Your task to perform on an android device: uninstall "Messages" Image 0: 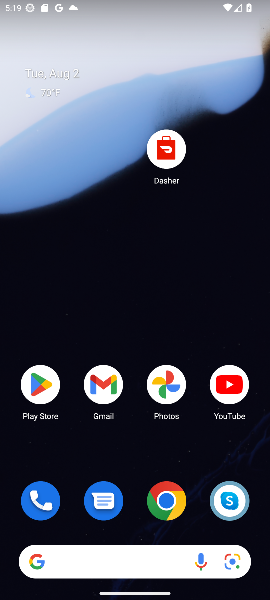
Step 0: press home button
Your task to perform on an android device: uninstall "Messages" Image 1: 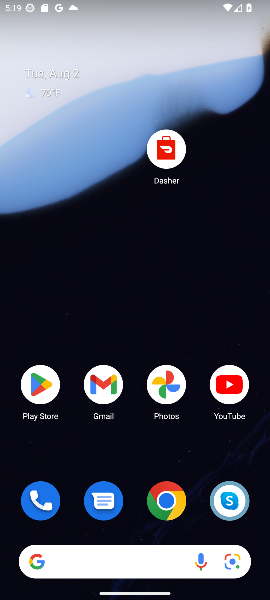
Step 1: click (39, 392)
Your task to perform on an android device: uninstall "Messages" Image 2: 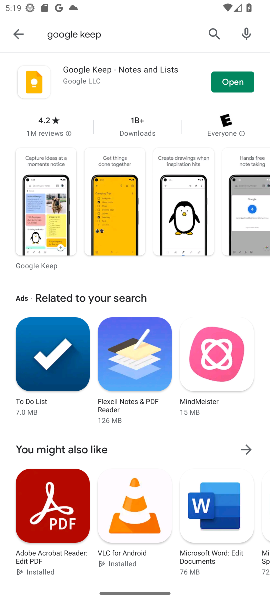
Step 2: click (215, 30)
Your task to perform on an android device: uninstall "Messages" Image 3: 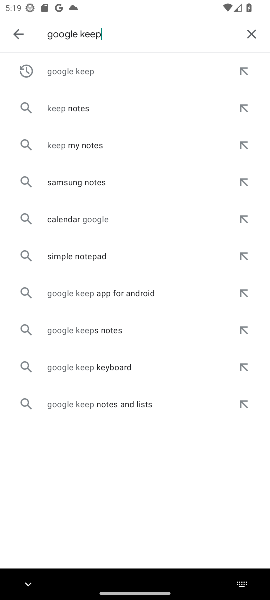
Step 3: click (252, 36)
Your task to perform on an android device: uninstall "Messages" Image 4: 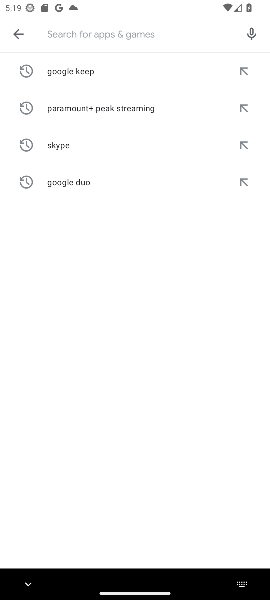
Step 4: type "Messages"
Your task to perform on an android device: uninstall "Messages" Image 5: 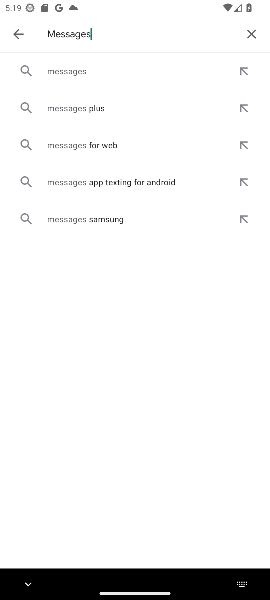
Step 5: click (70, 79)
Your task to perform on an android device: uninstall "Messages" Image 6: 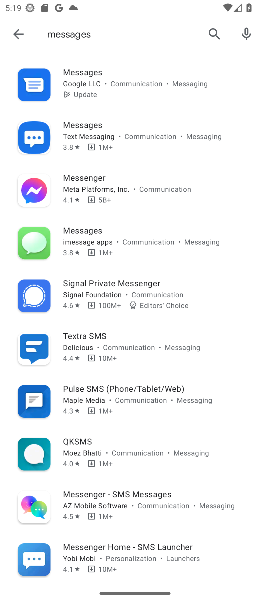
Step 6: click (70, 79)
Your task to perform on an android device: uninstall "Messages" Image 7: 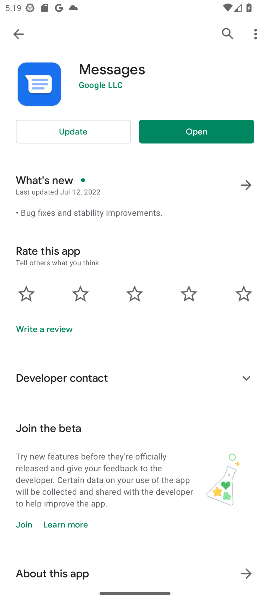
Step 7: click (60, 80)
Your task to perform on an android device: uninstall "Messages" Image 8: 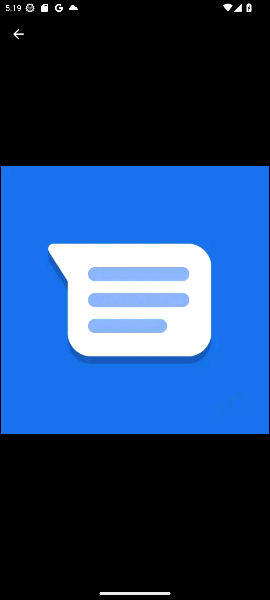
Step 8: click (19, 23)
Your task to perform on an android device: uninstall "Messages" Image 9: 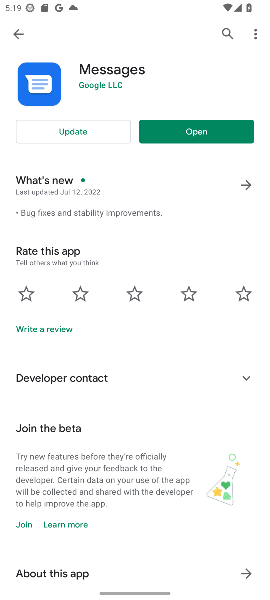
Step 9: click (127, 75)
Your task to perform on an android device: uninstall "Messages" Image 10: 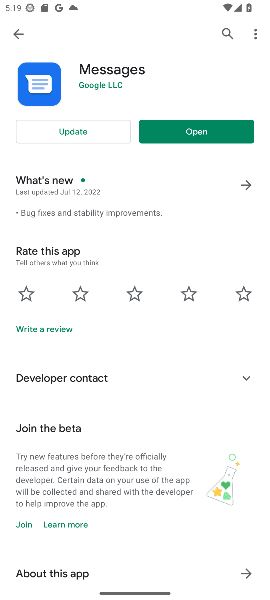
Step 10: click (125, 68)
Your task to perform on an android device: uninstall "Messages" Image 11: 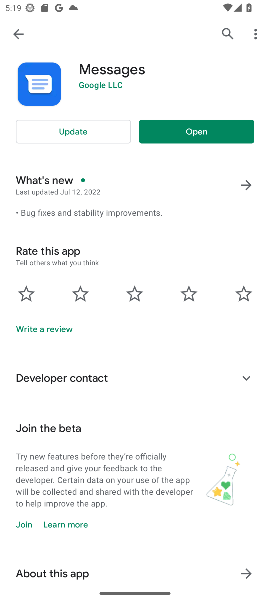
Step 11: click (121, 85)
Your task to perform on an android device: uninstall "Messages" Image 12: 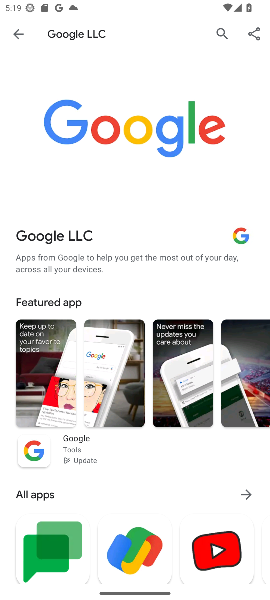
Step 12: task complete